Your task to perform on an android device: delete a single message in the gmail app Image 0: 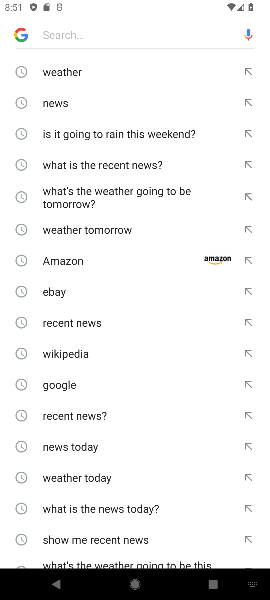
Step 0: press home button
Your task to perform on an android device: delete a single message in the gmail app Image 1: 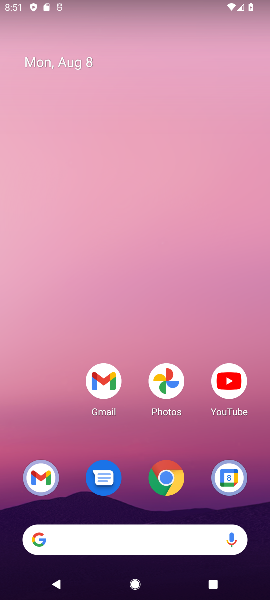
Step 1: click (108, 380)
Your task to perform on an android device: delete a single message in the gmail app Image 2: 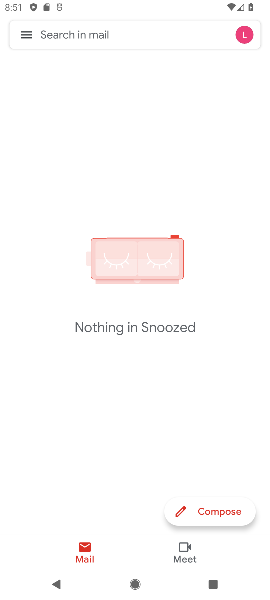
Step 2: click (20, 28)
Your task to perform on an android device: delete a single message in the gmail app Image 3: 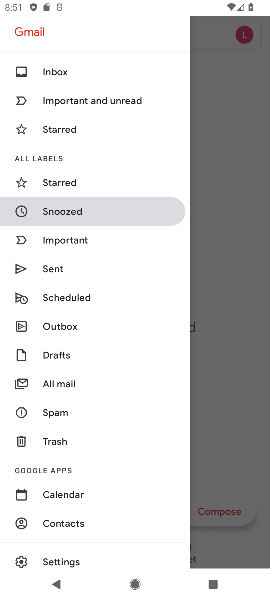
Step 3: click (62, 389)
Your task to perform on an android device: delete a single message in the gmail app Image 4: 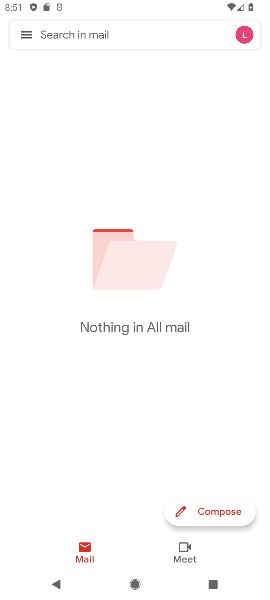
Step 4: task complete